Your task to perform on an android device: Open Reddit.com Image 0: 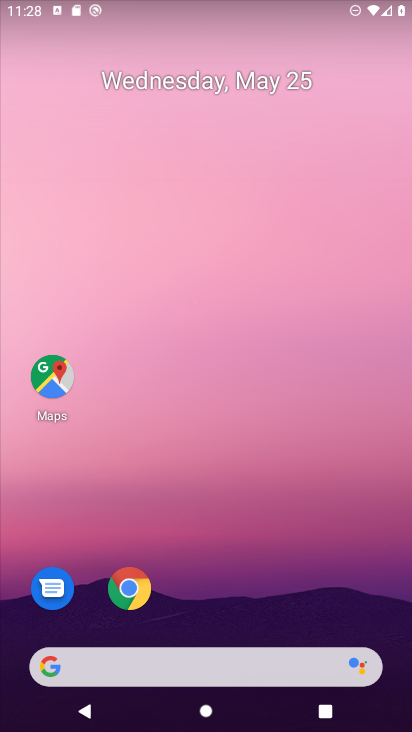
Step 0: press home button
Your task to perform on an android device: Open Reddit.com Image 1: 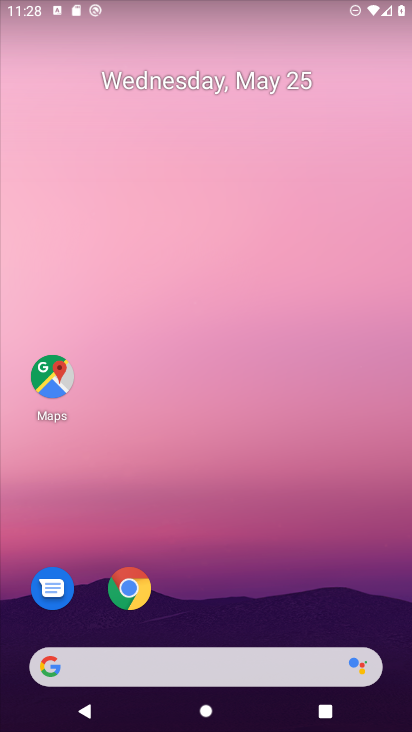
Step 1: click (142, 594)
Your task to perform on an android device: Open Reddit.com Image 2: 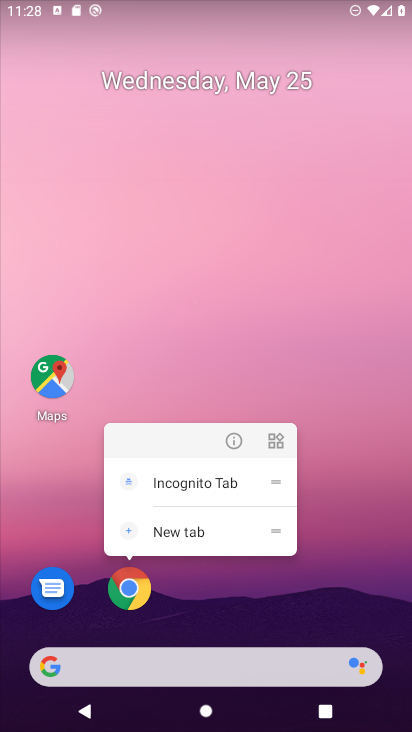
Step 2: click (127, 586)
Your task to perform on an android device: Open Reddit.com Image 3: 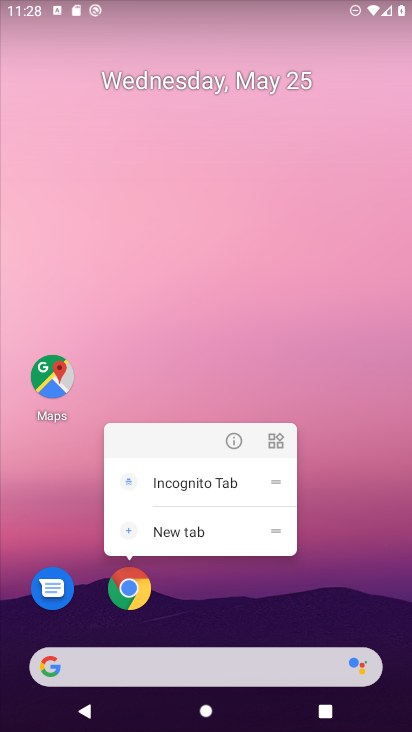
Step 3: click (132, 588)
Your task to perform on an android device: Open Reddit.com Image 4: 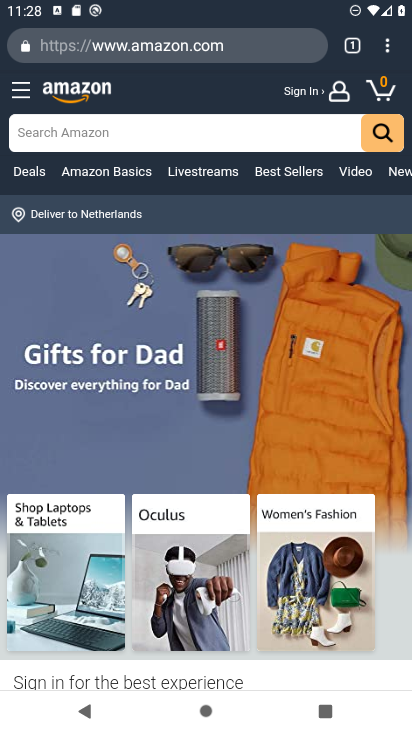
Step 4: click (112, 53)
Your task to perform on an android device: Open Reddit.com Image 5: 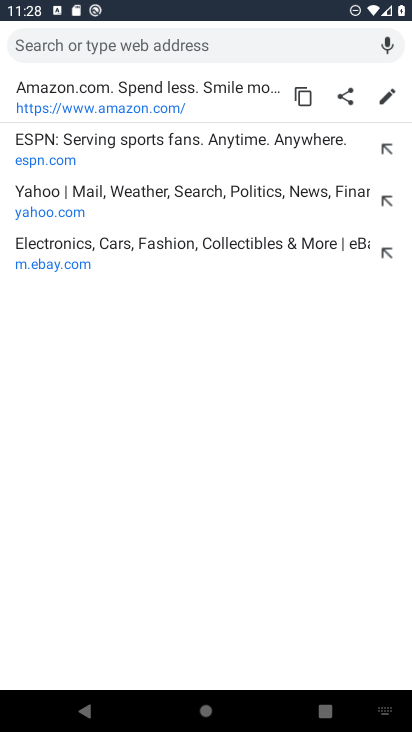
Step 5: type "Reddit.com"
Your task to perform on an android device: Open Reddit.com Image 6: 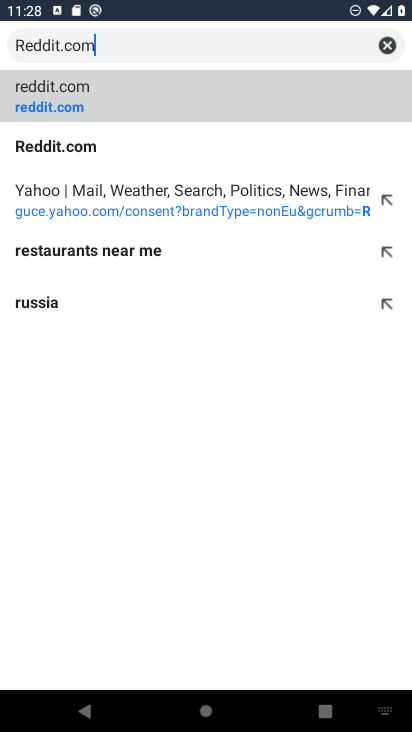
Step 6: type ""
Your task to perform on an android device: Open Reddit.com Image 7: 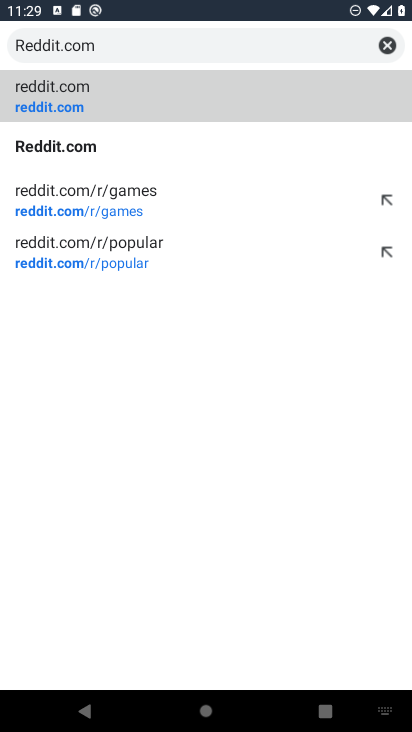
Step 7: click (63, 144)
Your task to perform on an android device: Open Reddit.com Image 8: 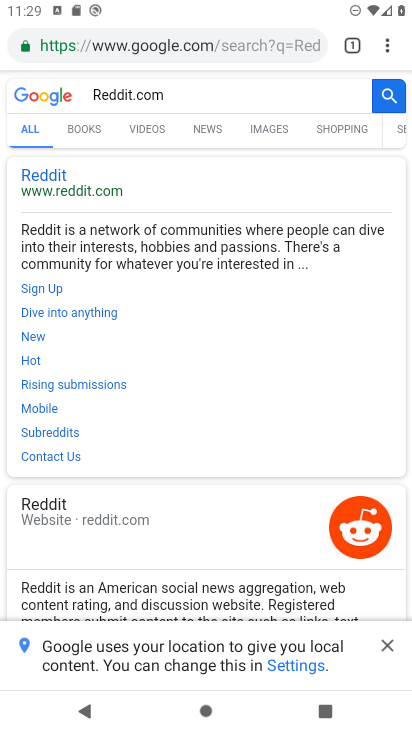
Step 8: click (43, 178)
Your task to perform on an android device: Open Reddit.com Image 9: 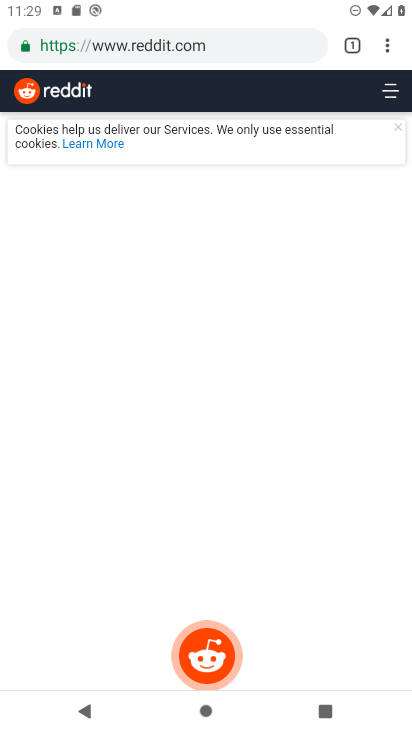
Step 9: task complete